Your task to perform on an android device: turn off javascript in the chrome app Image 0: 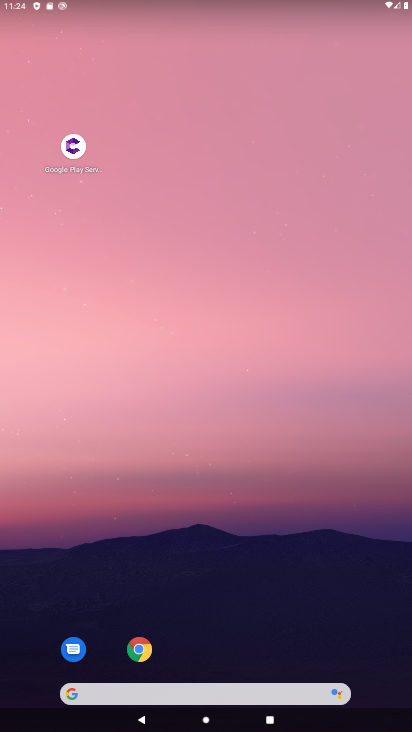
Step 0: drag from (21, 705) to (329, 75)
Your task to perform on an android device: turn off javascript in the chrome app Image 1: 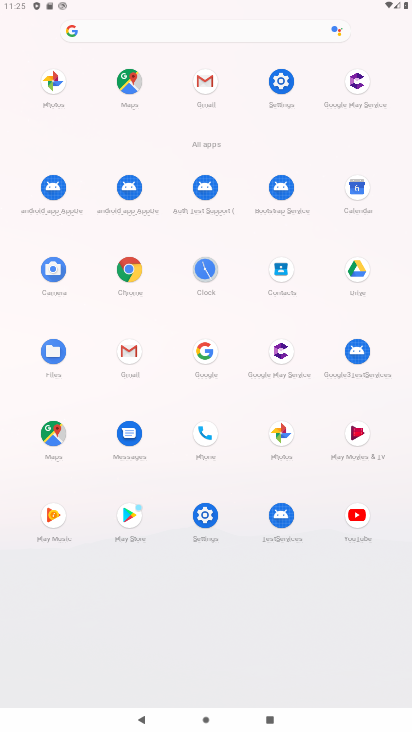
Step 1: click (129, 253)
Your task to perform on an android device: turn off javascript in the chrome app Image 2: 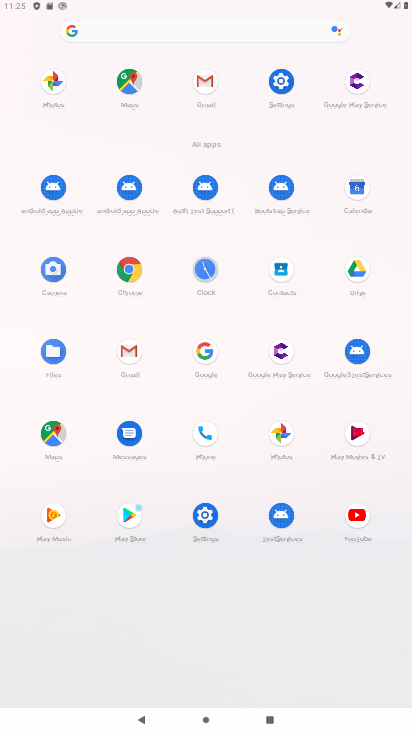
Step 2: click (127, 266)
Your task to perform on an android device: turn off javascript in the chrome app Image 3: 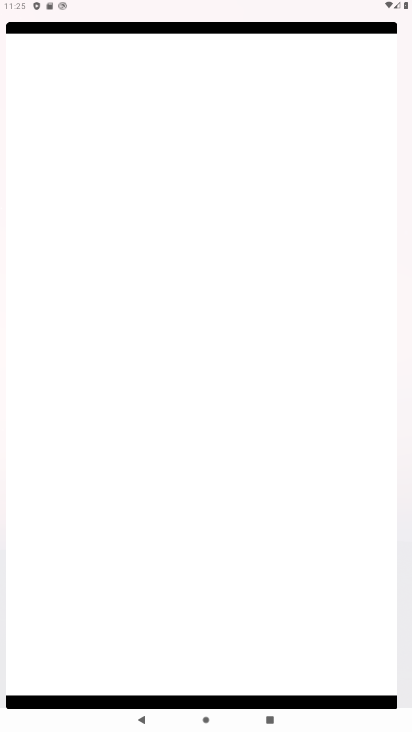
Step 3: click (122, 271)
Your task to perform on an android device: turn off javascript in the chrome app Image 4: 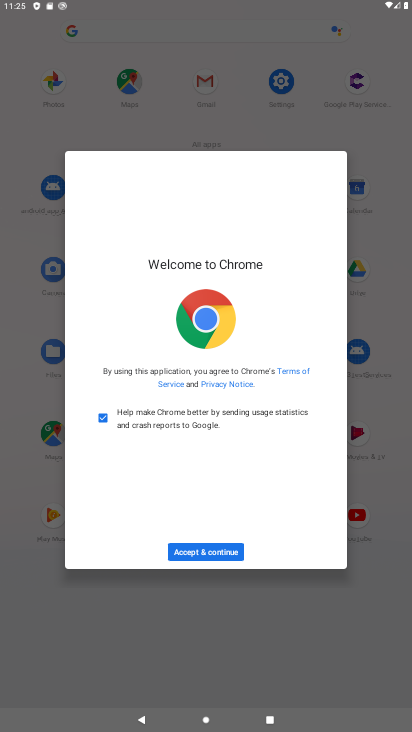
Step 4: click (209, 550)
Your task to perform on an android device: turn off javascript in the chrome app Image 5: 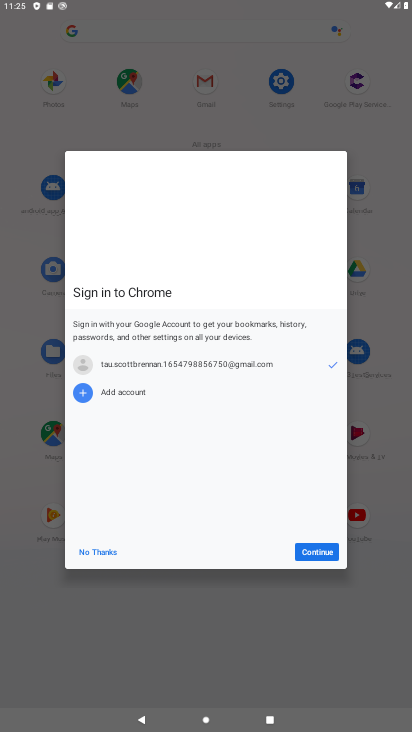
Step 5: click (325, 551)
Your task to perform on an android device: turn off javascript in the chrome app Image 6: 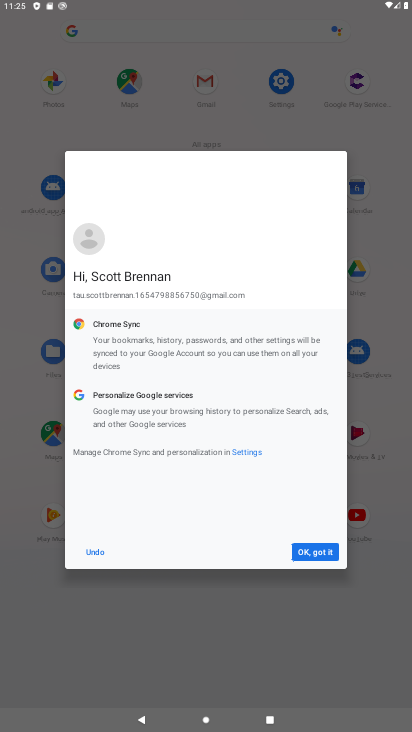
Step 6: click (321, 553)
Your task to perform on an android device: turn off javascript in the chrome app Image 7: 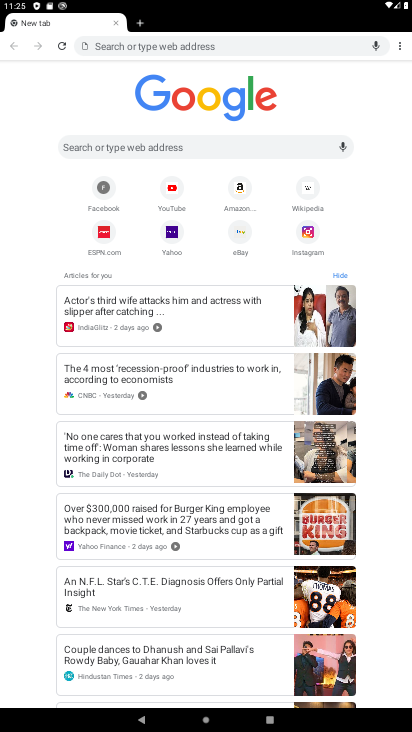
Step 7: click (401, 44)
Your task to perform on an android device: turn off javascript in the chrome app Image 8: 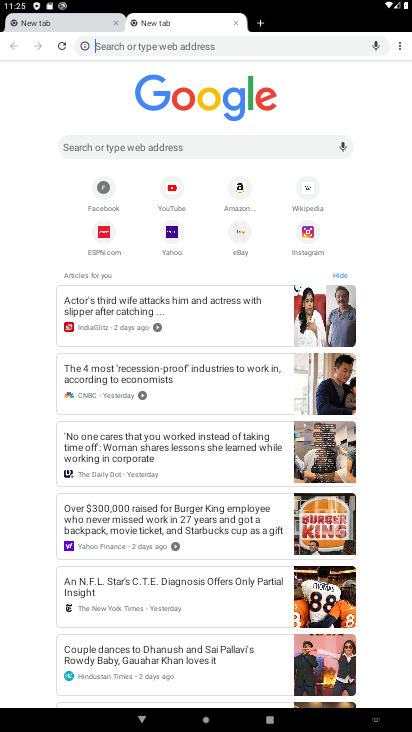
Step 8: click (396, 44)
Your task to perform on an android device: turn off javascript in the chrome app Image 9: 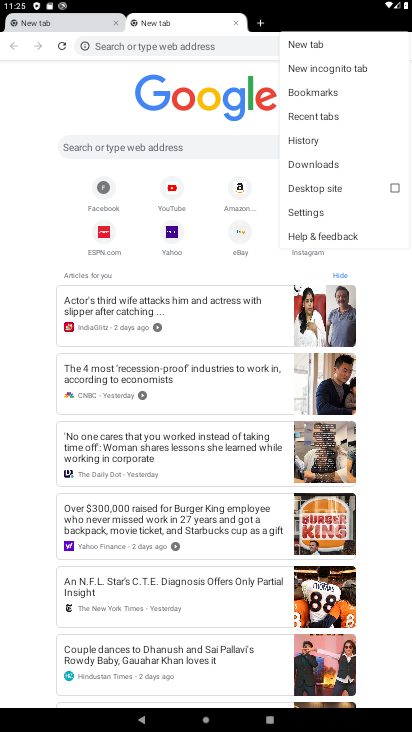
Step 9: click (293, 211)
Your task to perform on an android device: turn off javascript in the chrome app Image 10: 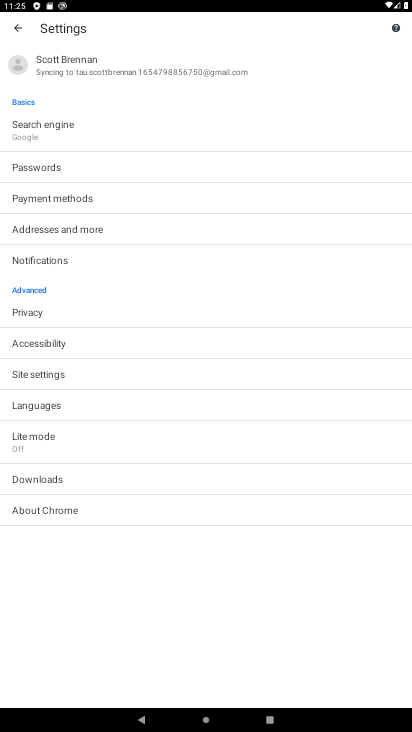
Step 10: click (35, 376)
Your task to perform on an android device: turn off javascript in the chrome app Image 11: 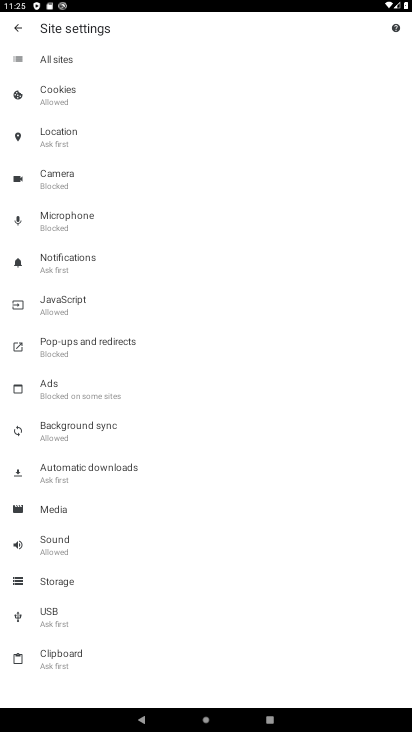
Step 11: click (60, 300)
Your task to perform on an android device: turn off javascript in the chrome app Image 12: 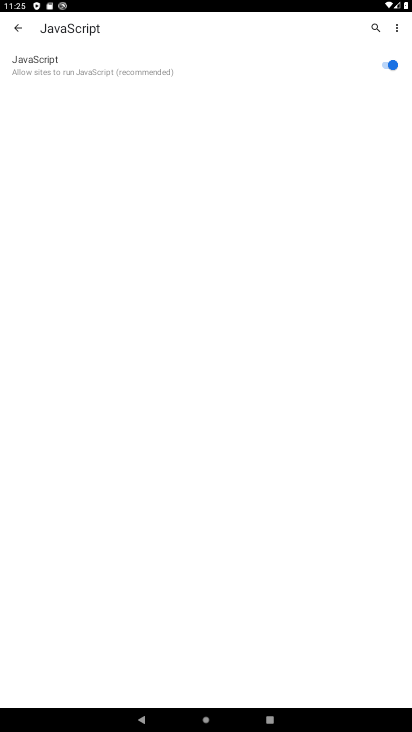
Step 12: click (389, 60)
Your task to perform on an android device: turn off javascript in the chrome app Image 13: 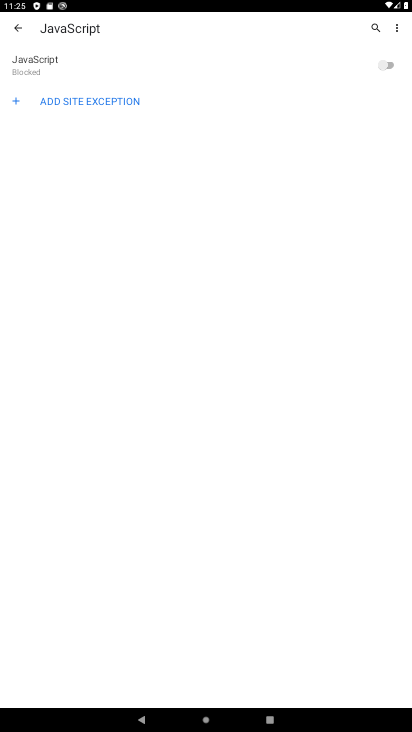
Step 13: task complete